Your task to perform on an android device: Open settings on Google Maps Image 0: 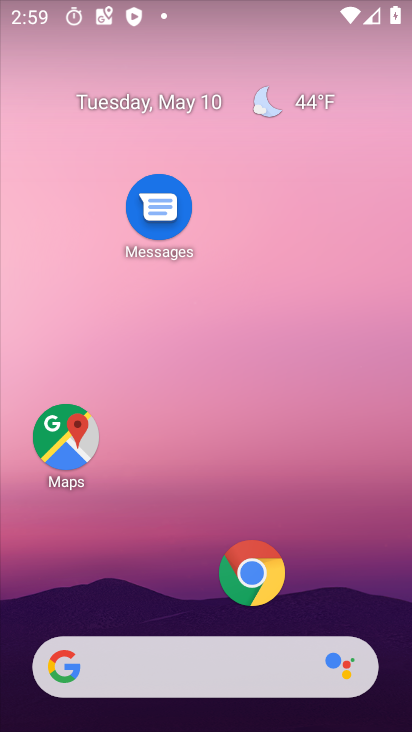
Step 0: click (83, 440)
Your task to perform on an android device: Open settings on Google Maps Image 1: 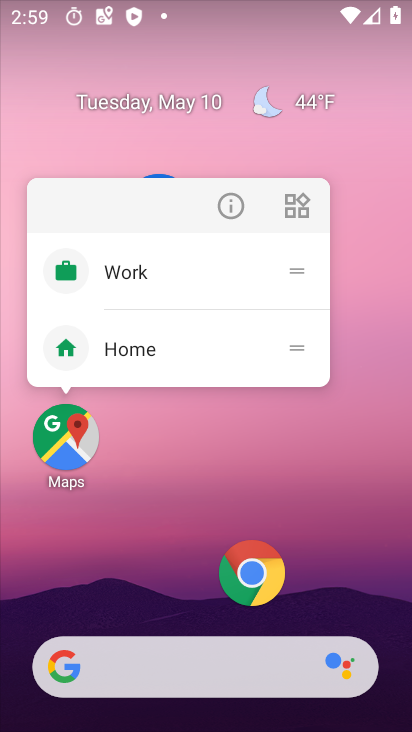
Step 1: click (83, 440)
Your task to perform on an android device: Open settings on Google Maps Image 2: 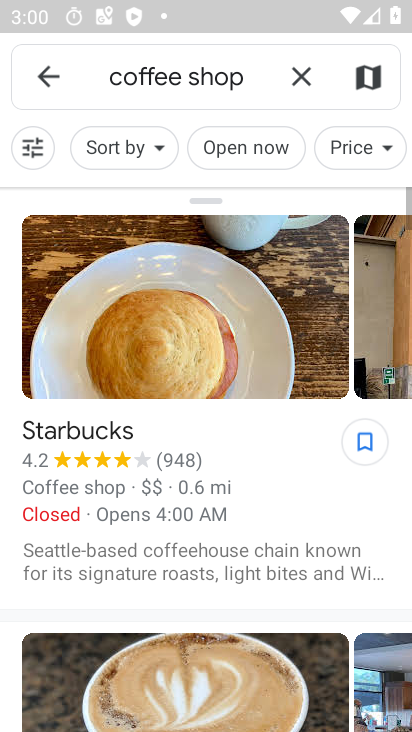
Step 2: click (57, 68)
Your task to perform on an android device: Open settings on Google Maps Image 3: 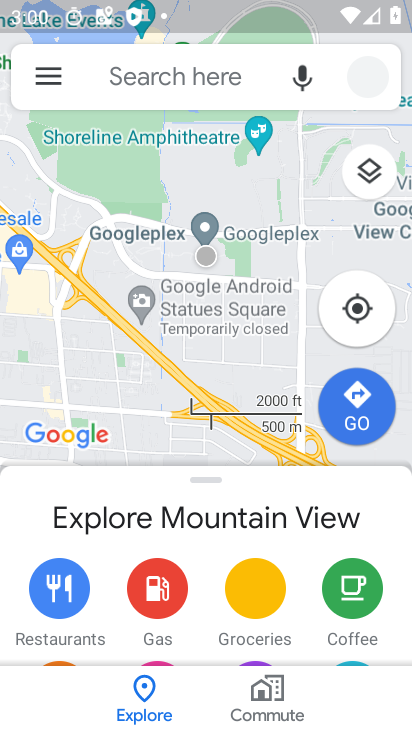
Step 3: click (47, 83)
Your task to perform on an android device: Open settings on Google Maps Image 4: 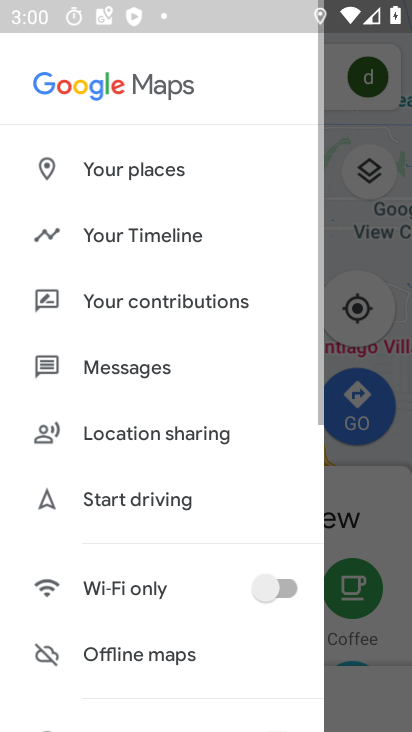
Step 4: drag from (141, 639) to (186, 263)
Your task to perform on an android device: Open settings on Google Maps Image 5: 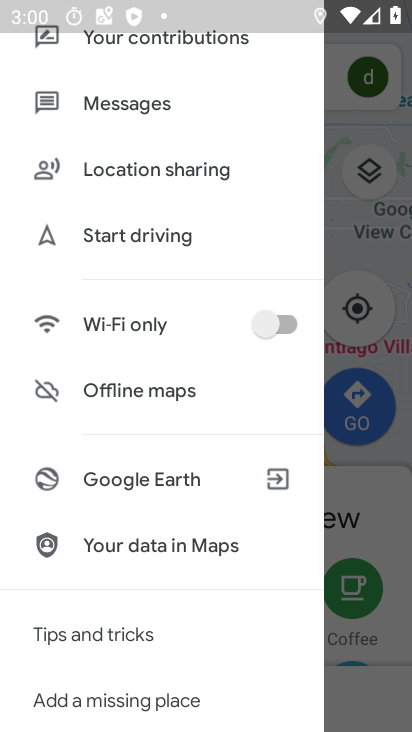
Step 5: drag from (170, 641) to (208, 318)
Your task to perform on an android device: Open settings on Google Maps Image 6: 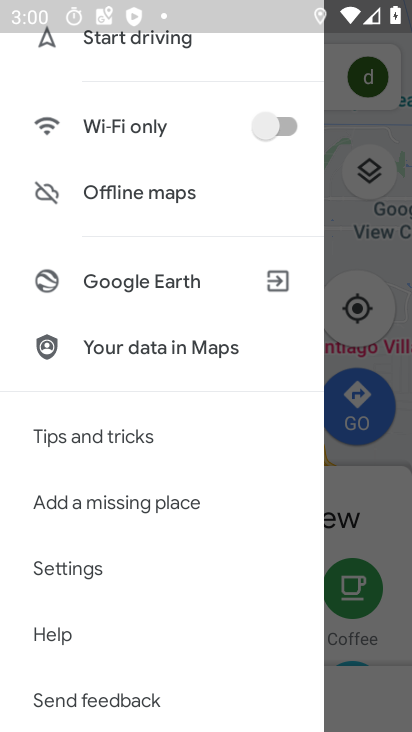
Step 6: click (100, 575)
Your task to perform on an android device: Open settings on Google Maps Image 7: 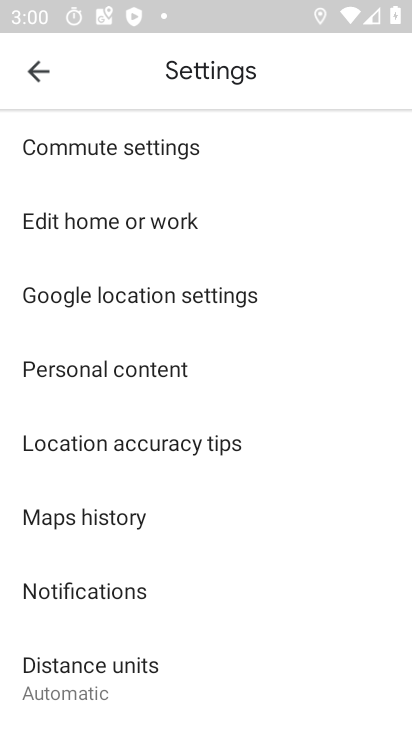
Step 7: task complete